Your task to perform on an android device: manage bookmarks in the chrome app Image 0: 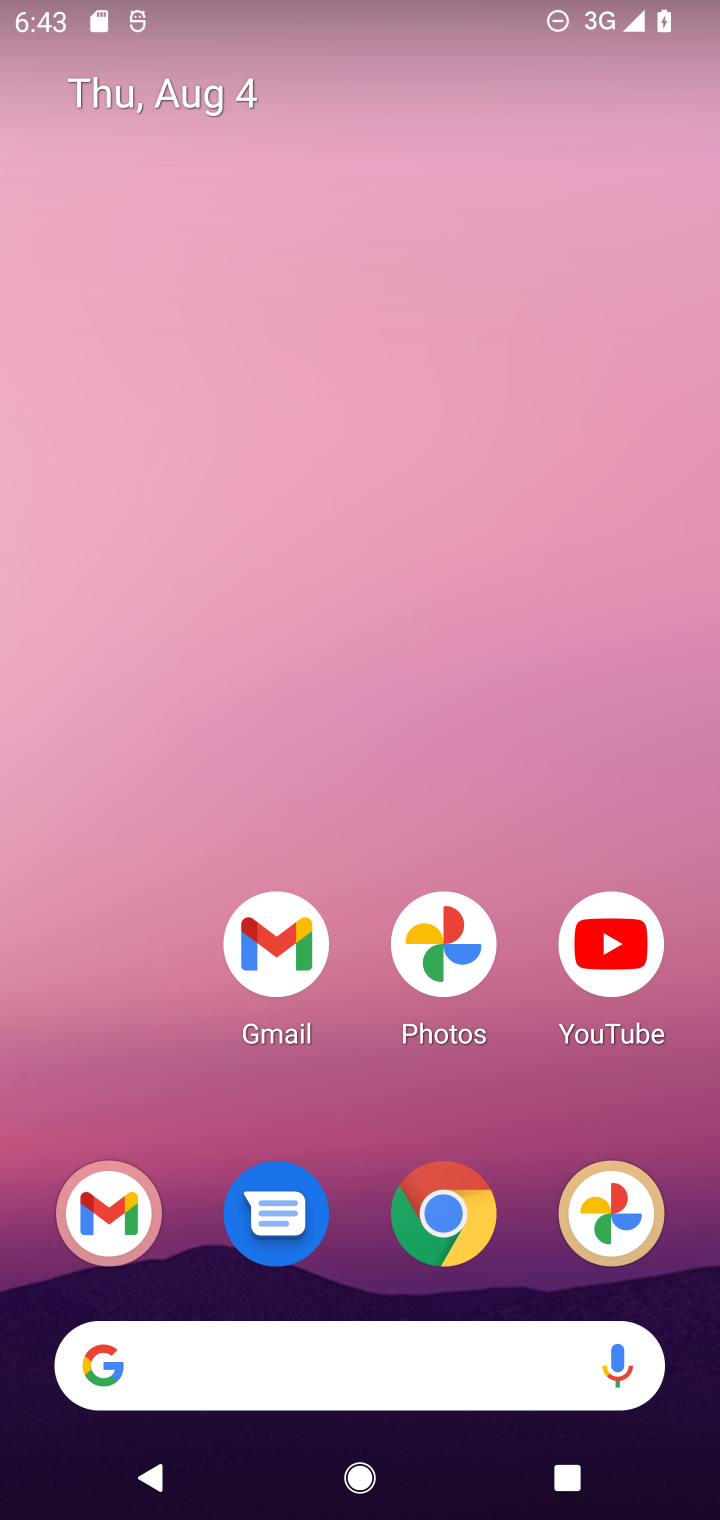
Step 0: press home button
Your task to perform on an android device: manage bookmarks in the chrome app Image 1: 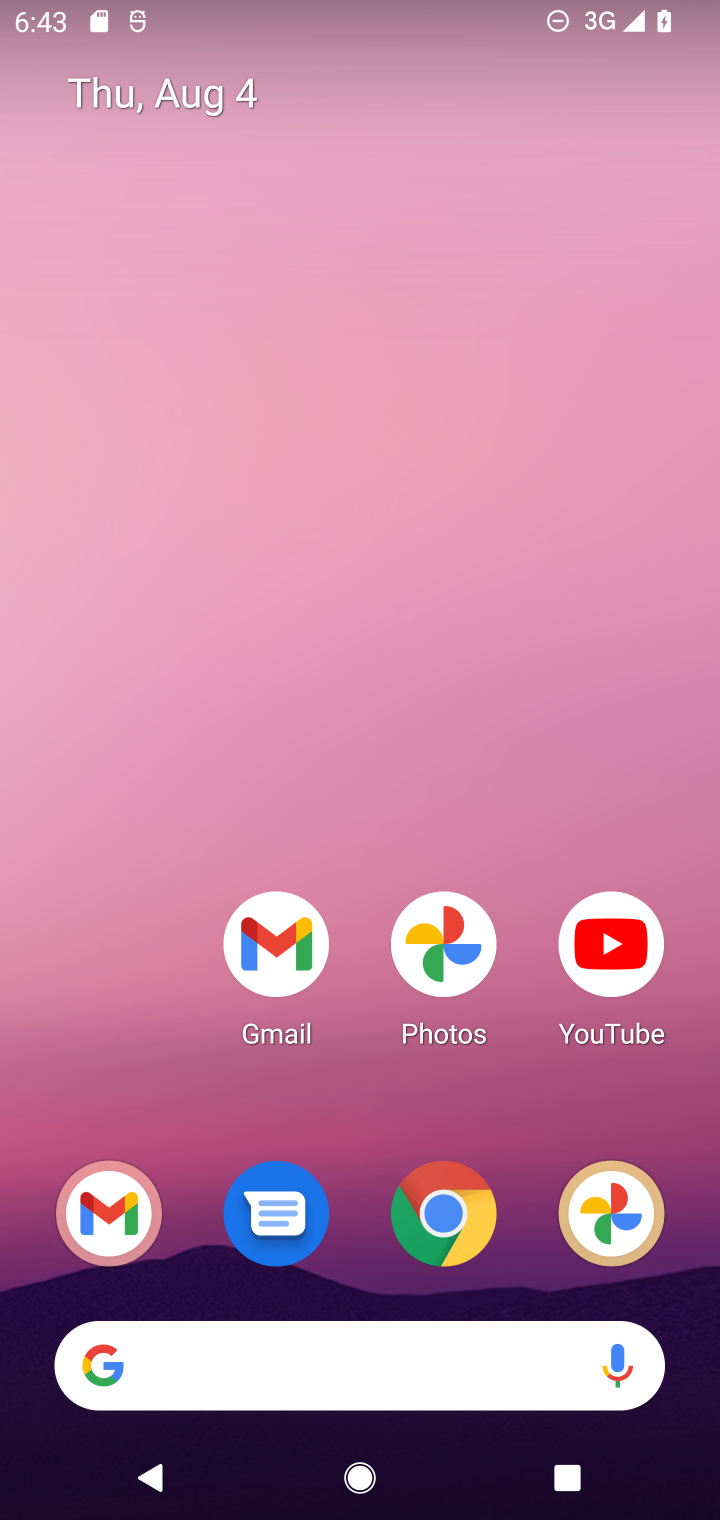
Step 1: drag from (165, 1074) to (109, 246)
Your task to perform on an android device: manage bookmarks in the chrome app Image 2: 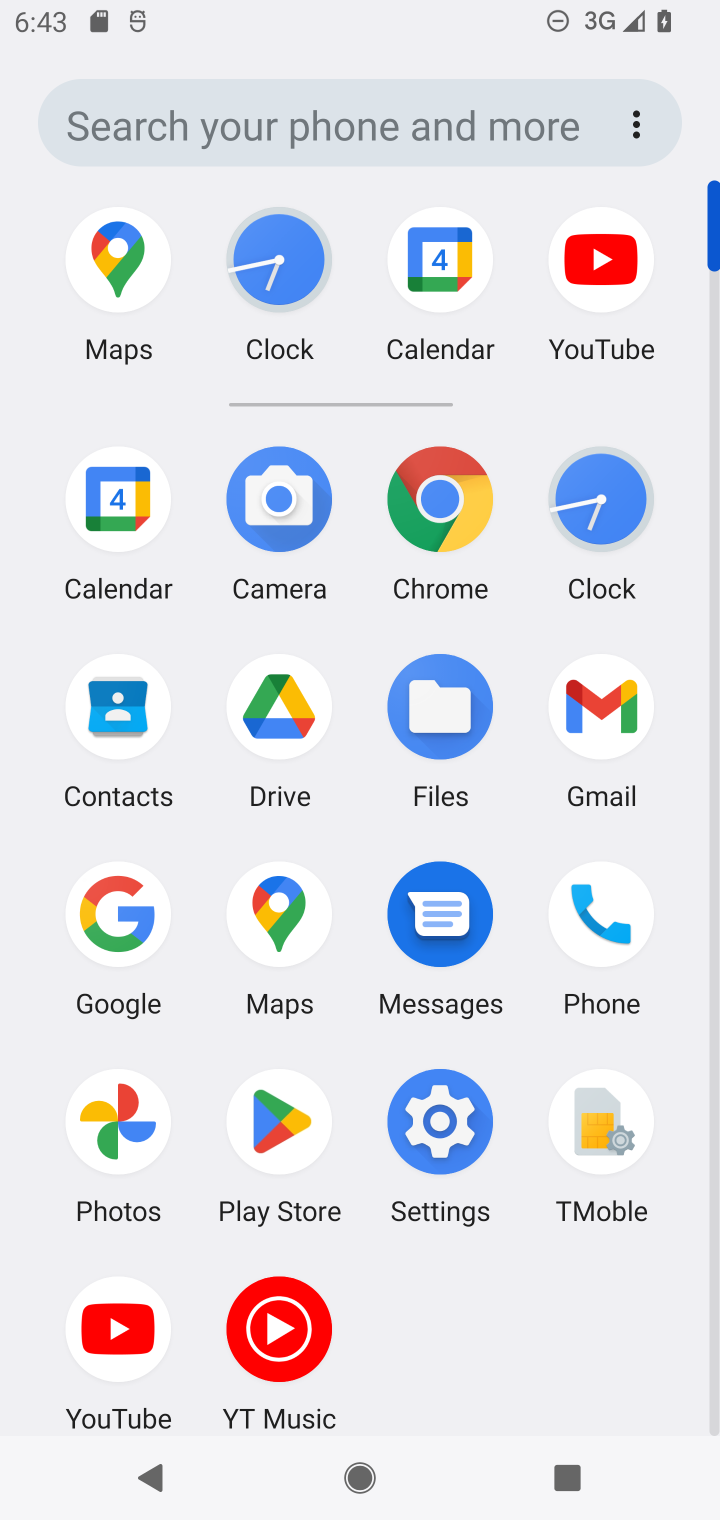
Step 2: click (449, 517)
Your task to perform on an android device: manage bookmarks in the chrome app Image 3: 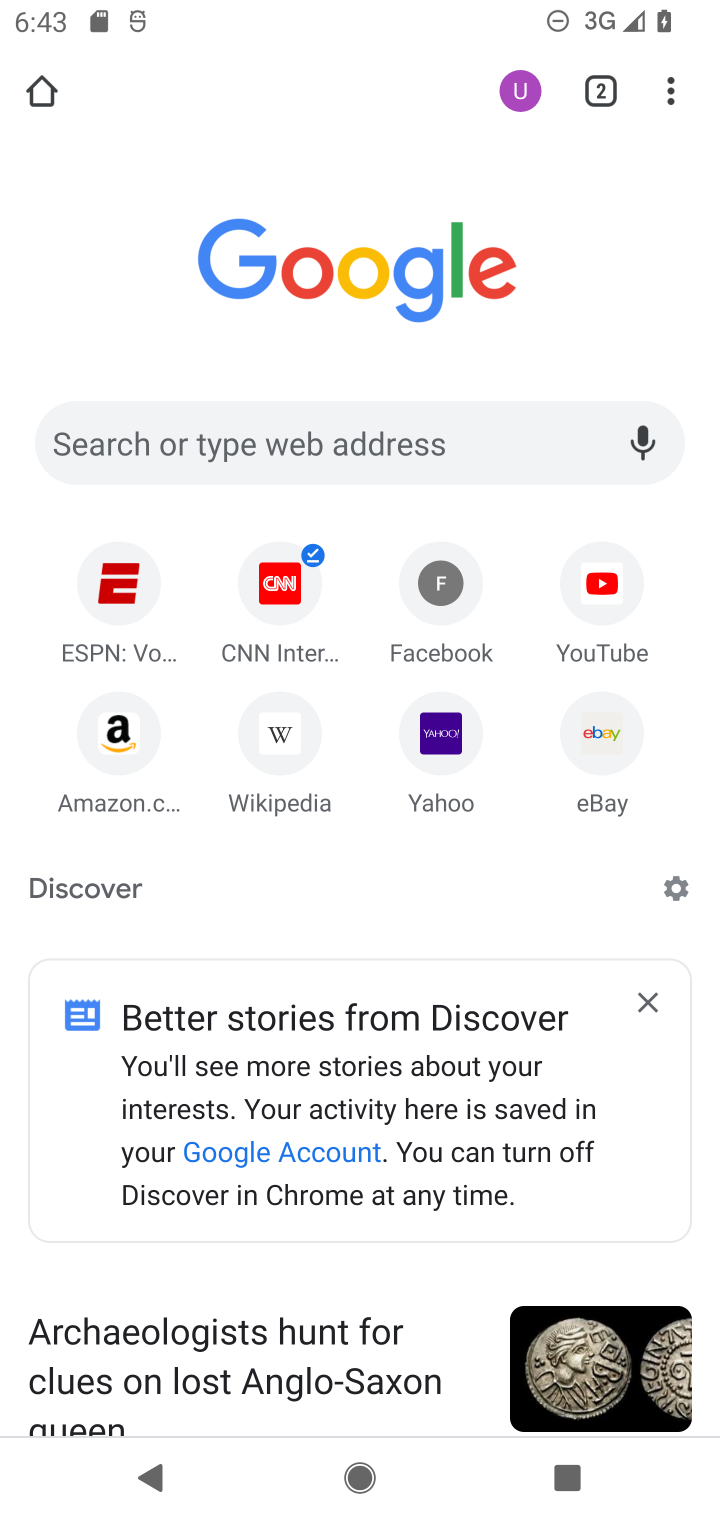
Step 3: click (672, 96)
Your task to perform on an android device: manage bookmarks in the chrome app Image 4: 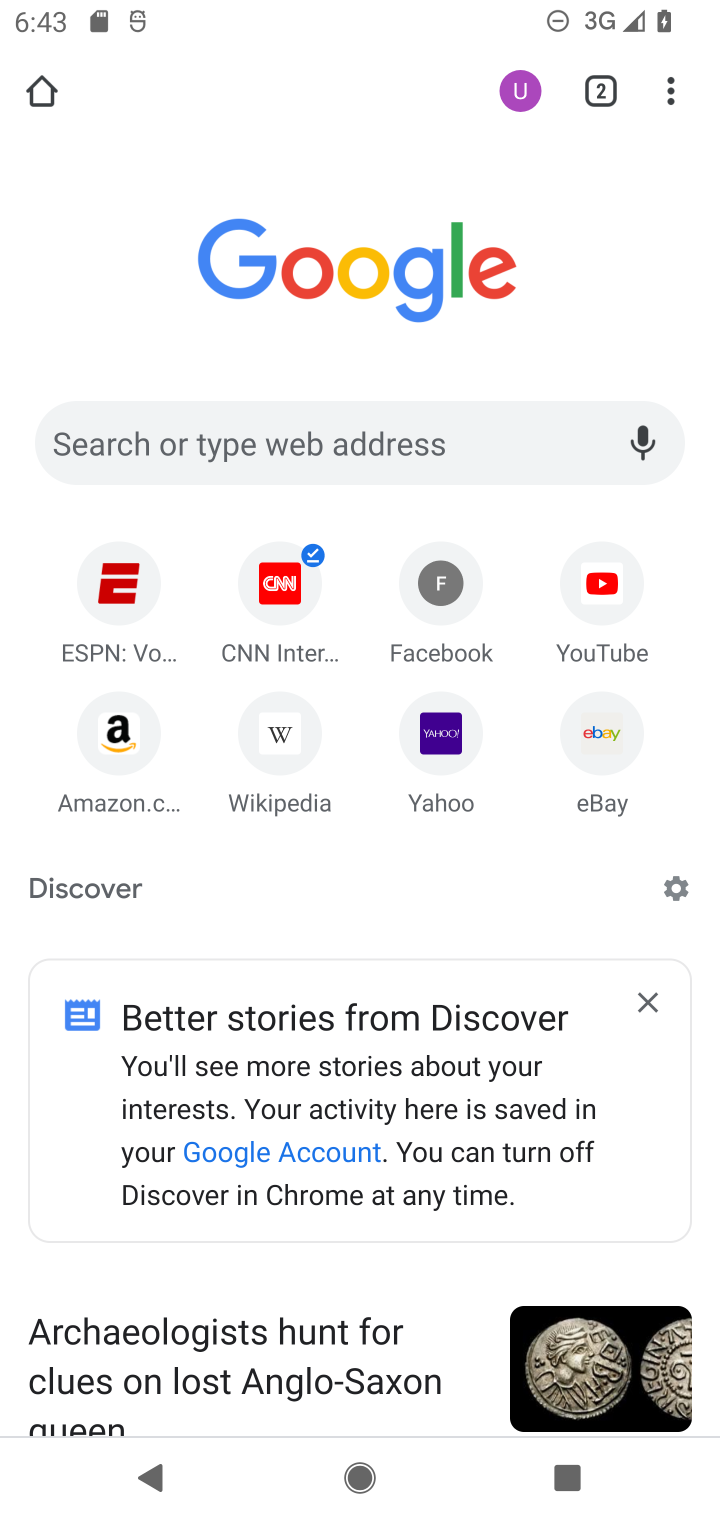
Step 4: click (678, 102)
Your task to perform on an android device: manage bookmarks in the chrome app Image 5: 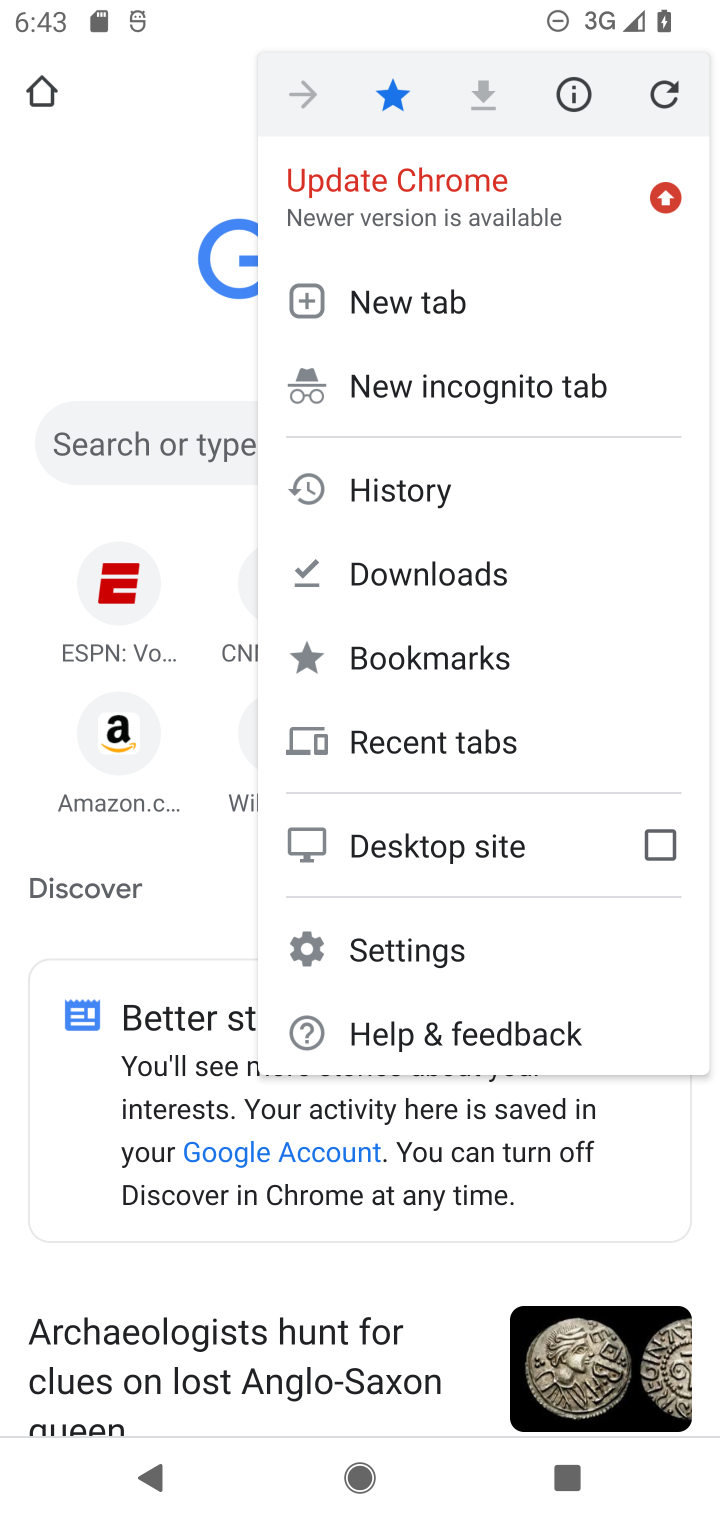
Step 5: drag from (547, 883) to (553, 463)
Your task to perform on an android device: manage bookmarks in the chrome app Image 6: 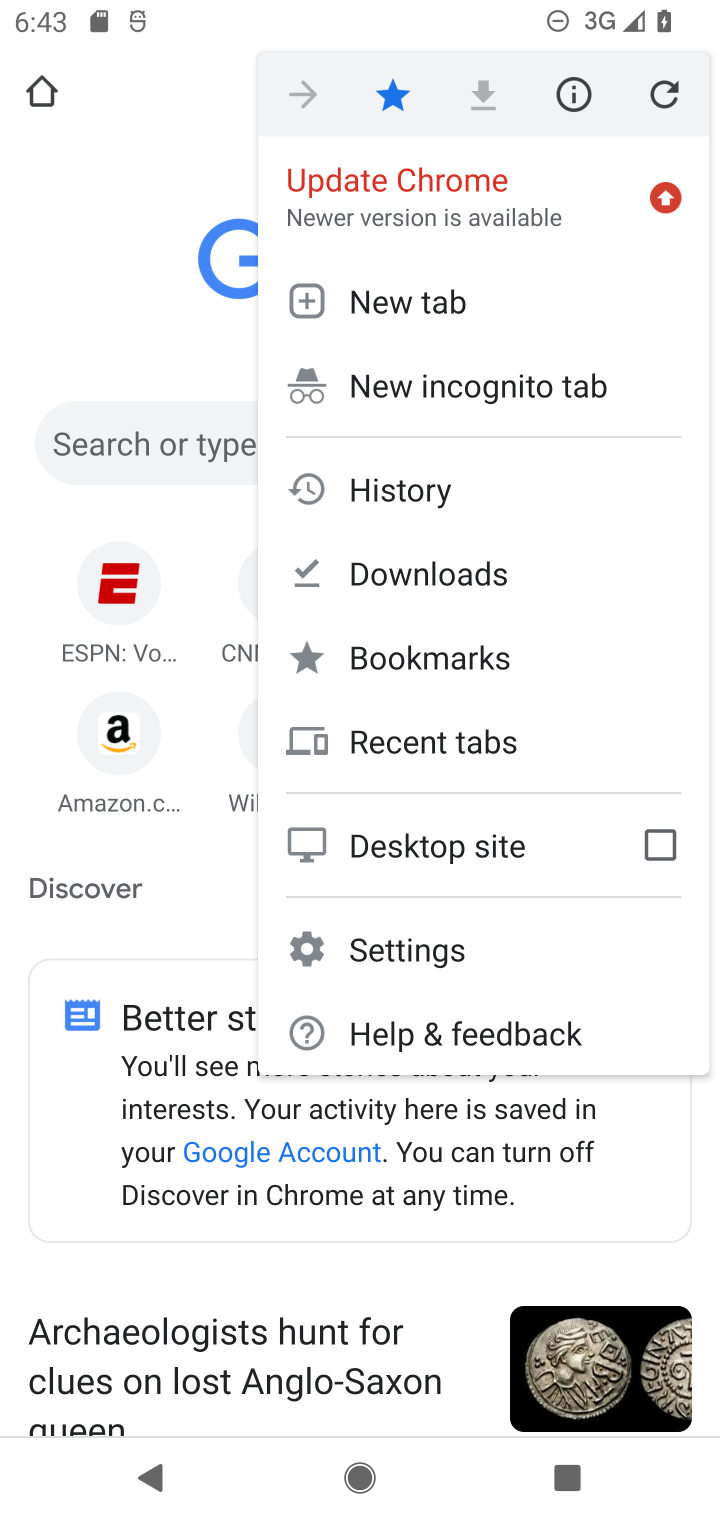
Step 6: click (490, 670)
Your task to perform on an android device: manage bookmarks in the chrome app Image 7: 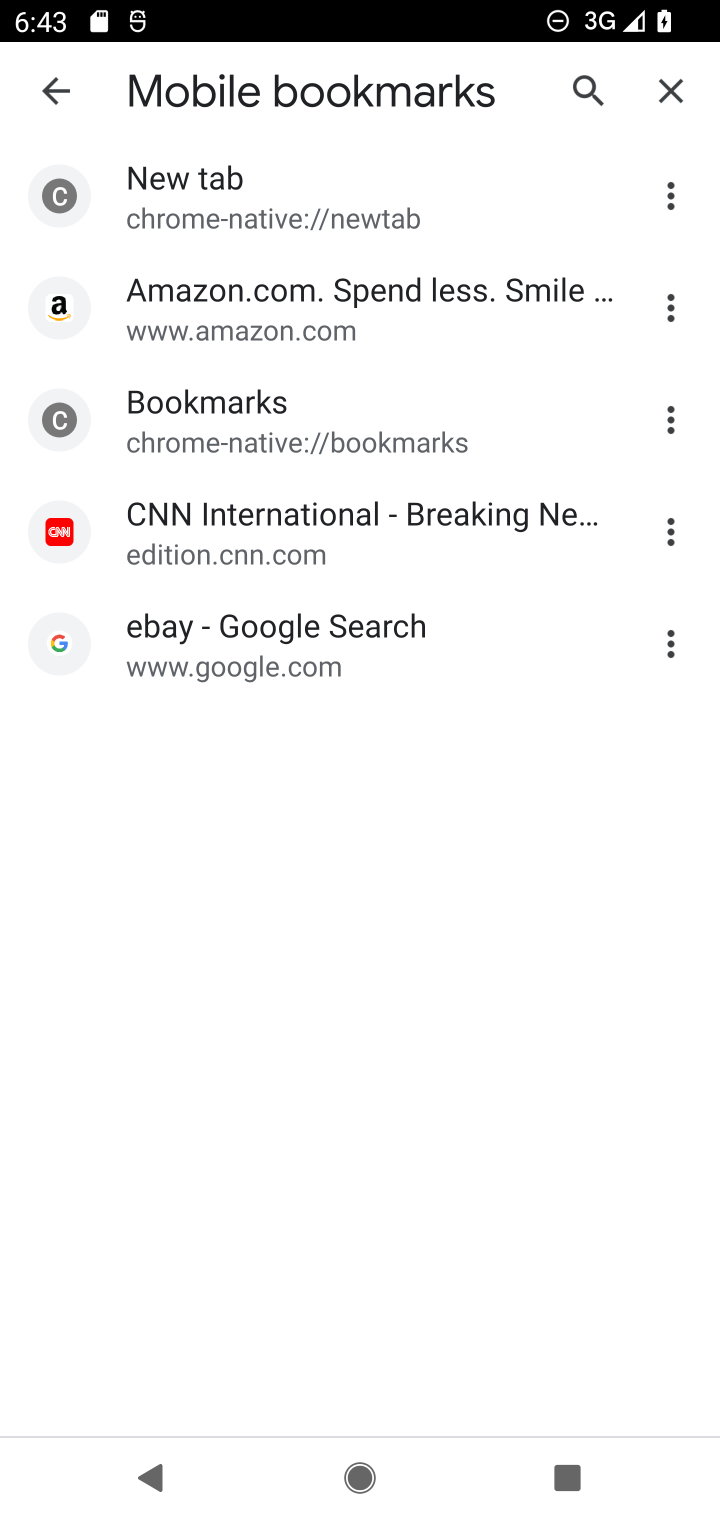
Step 7: click (665, 191)
Your task to perform on an android device: manage bookmarks in the chrome app Image 8: 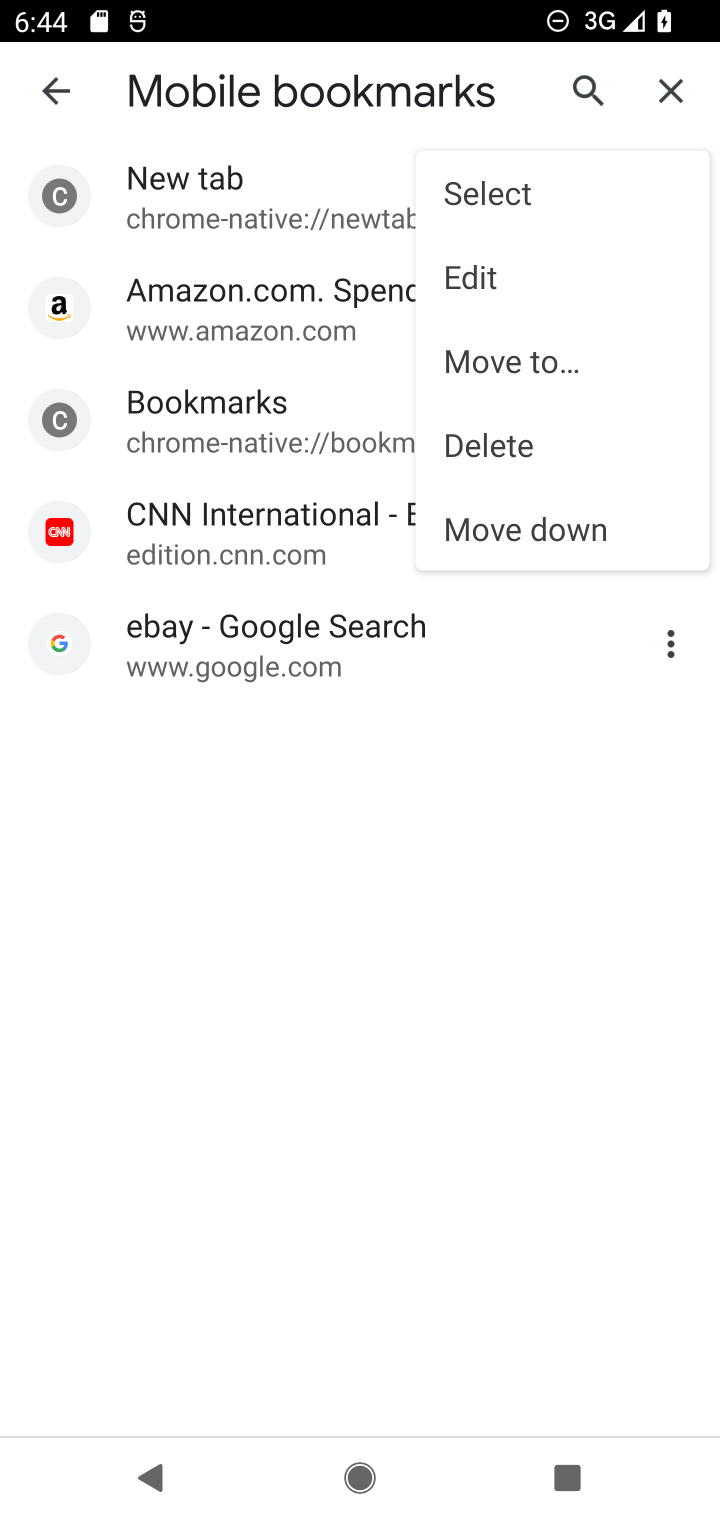
Step 8: click (501, 271)
Your task to perform on an android device: manage bookmarks in the chrome app Image 9: 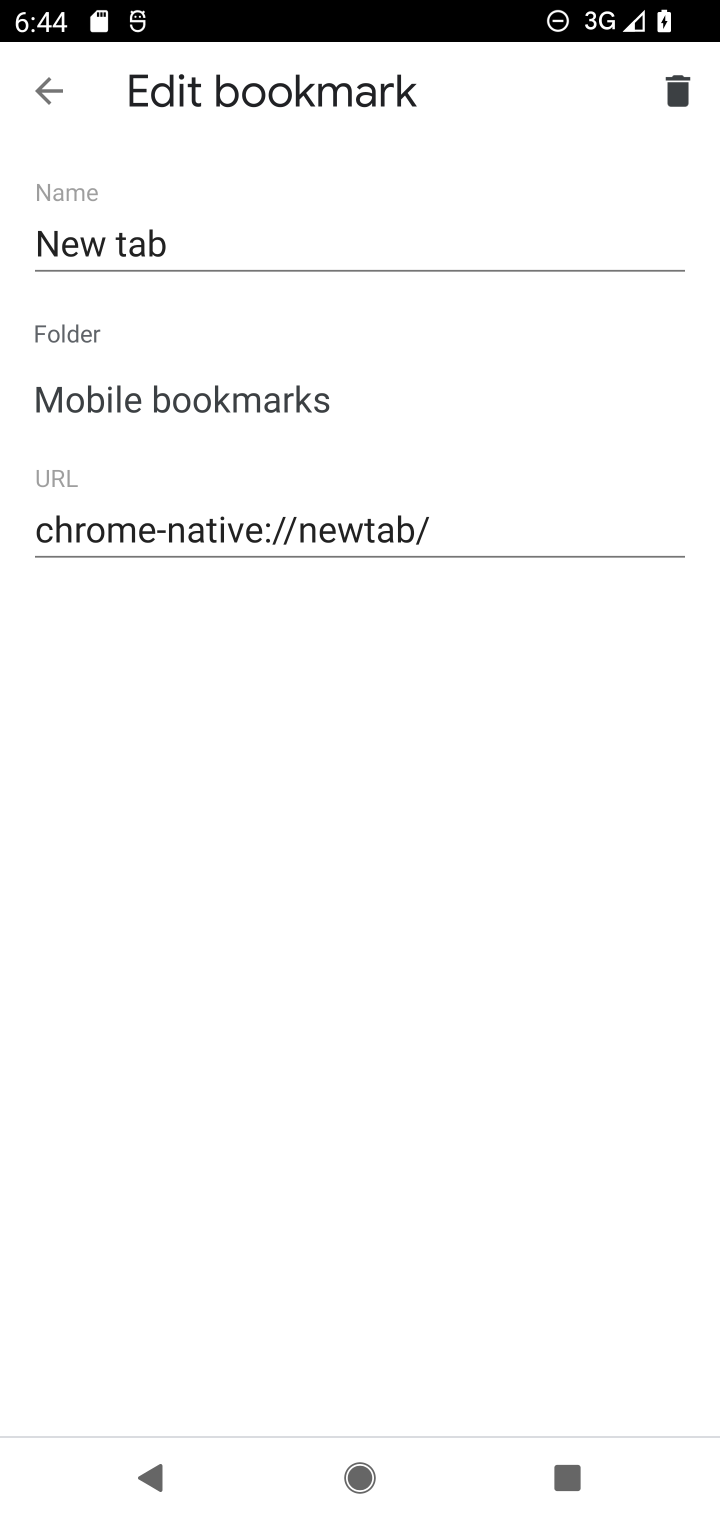
Step 9: click (205, 238)
Your task to perform on an android device: manage bookmarks in the chrome app Image 10: 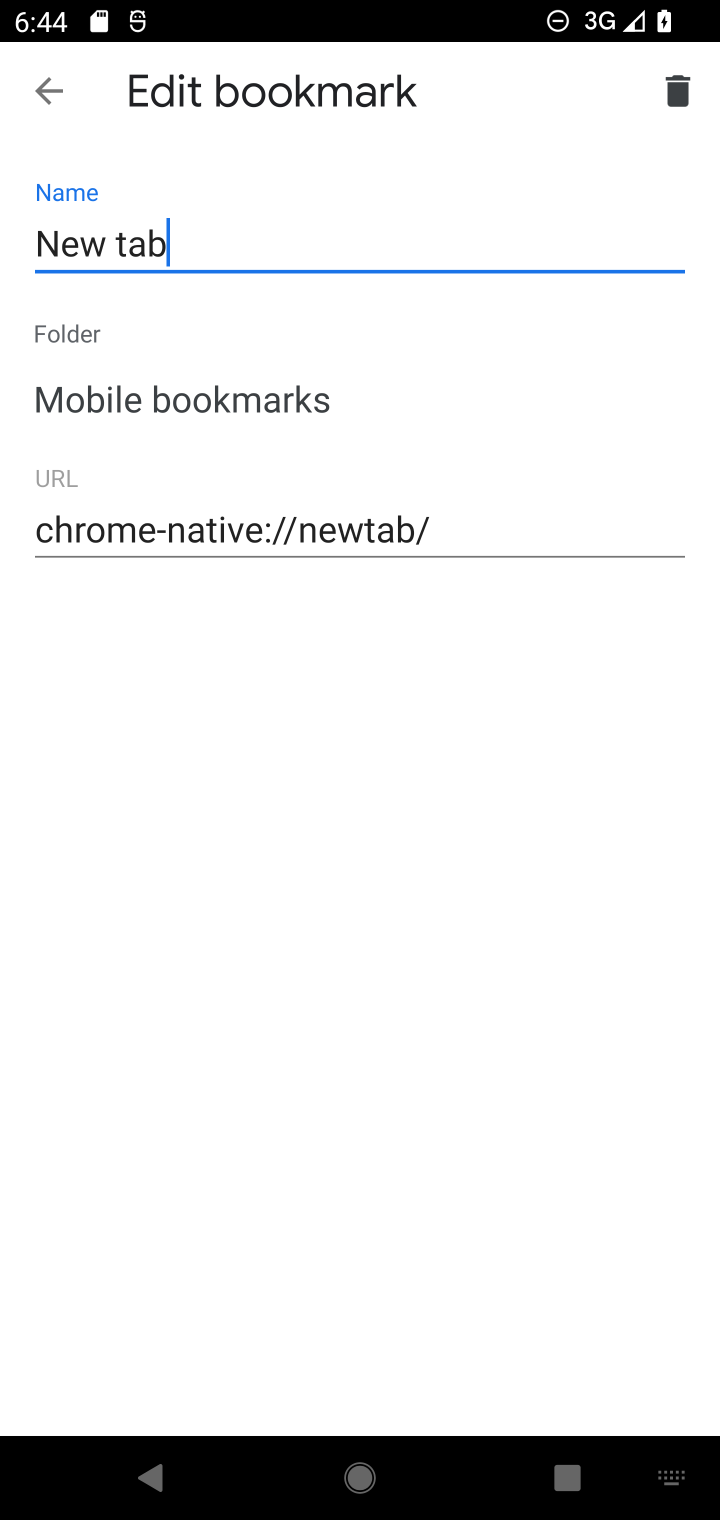
Step 10: type "b"
Your task to perform on an android device: manage bookmarks in the chrome app Image 11: 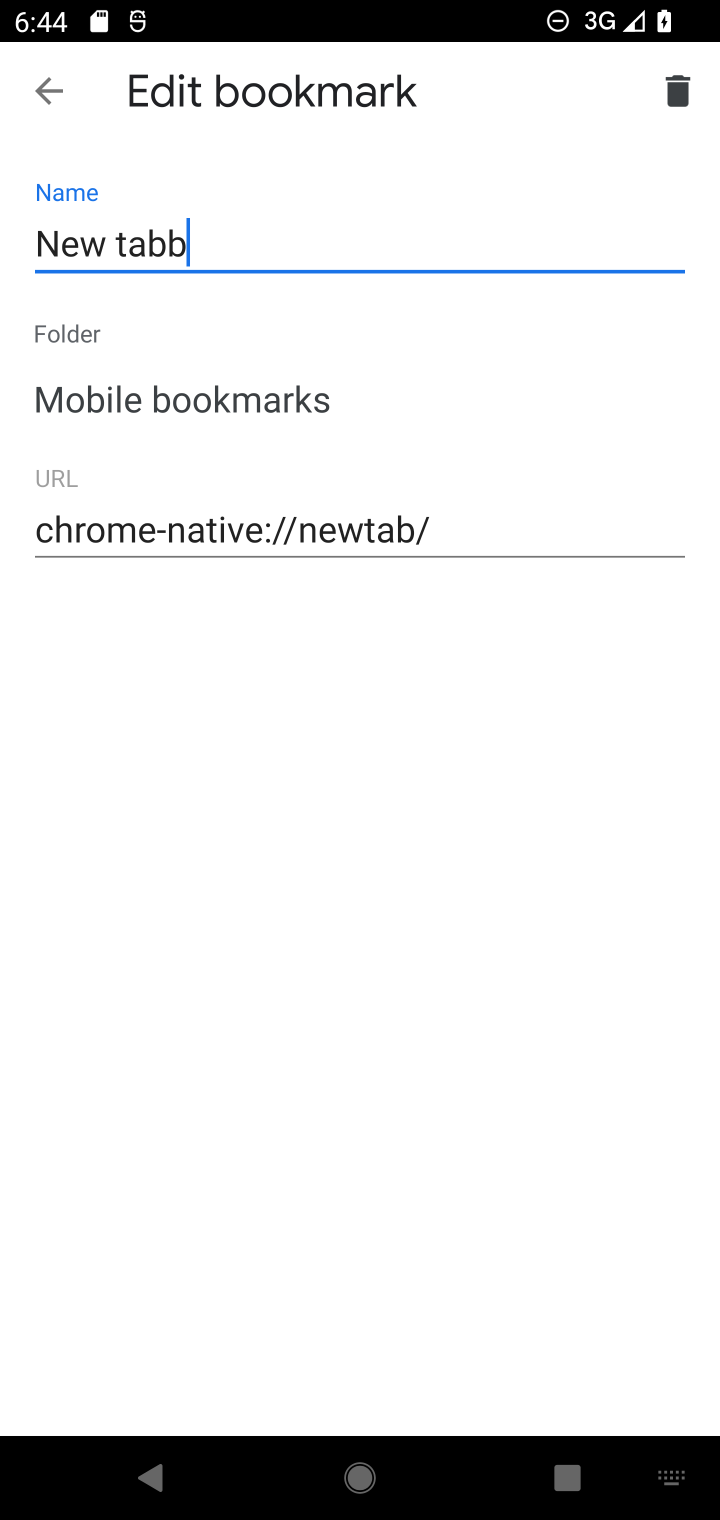
Step 11: click (48, 88)
Your task to perform on an android device: manage bookmarks in the chrome app Image 12: 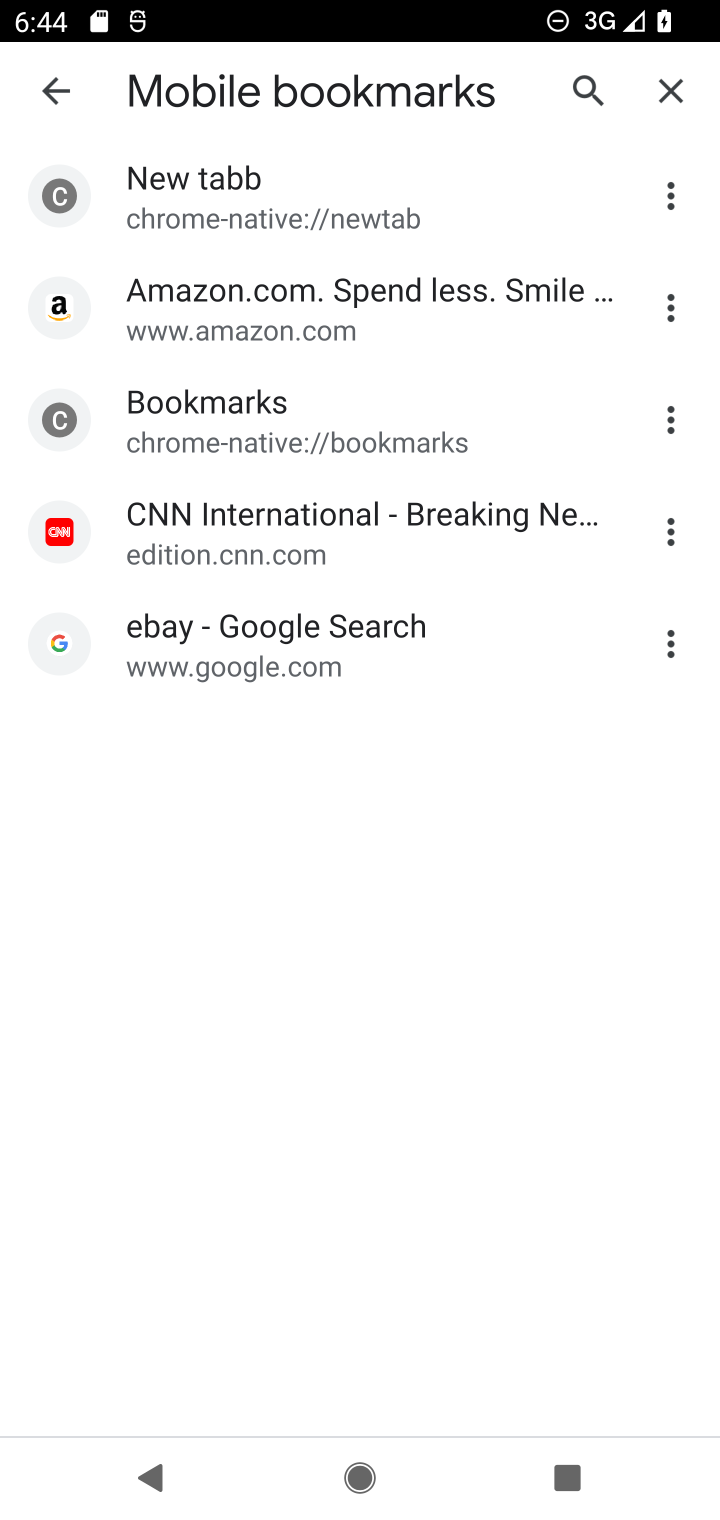
Step 12: task complete